Your task to perform on an android device: turn off improve location accuracy Image 0: 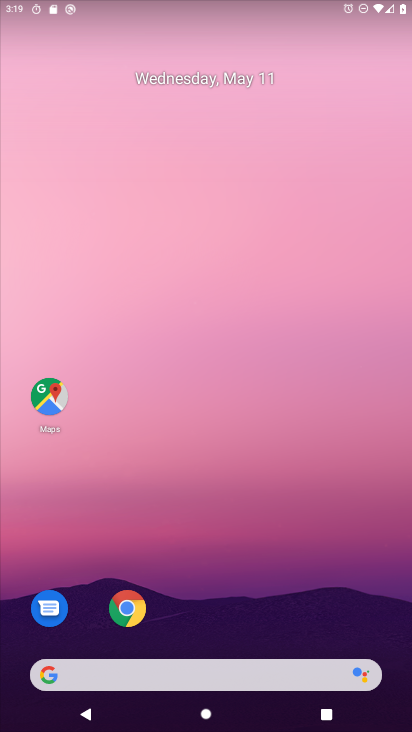
Step 0: drag from (248, 660) to (343, 126)
Your task to perform on an android device: turn off improve location accuracy Image 1: 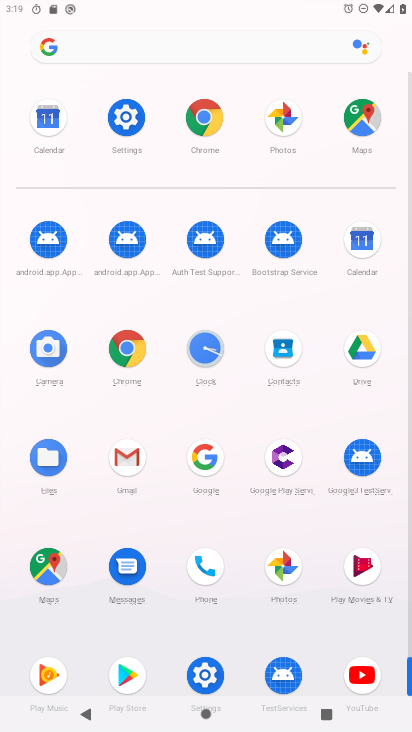
Step 1: click (112, 130)
Your task to perform on an android device: turn off improve location accuracy Image 2: 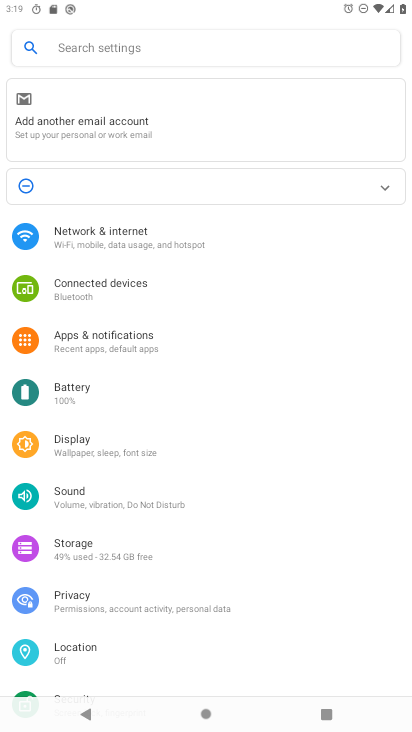
Step 2: drag from (187, 485) to (199, 233)
Your task to perform on an android device: turn off improve location accuracy Image 3: 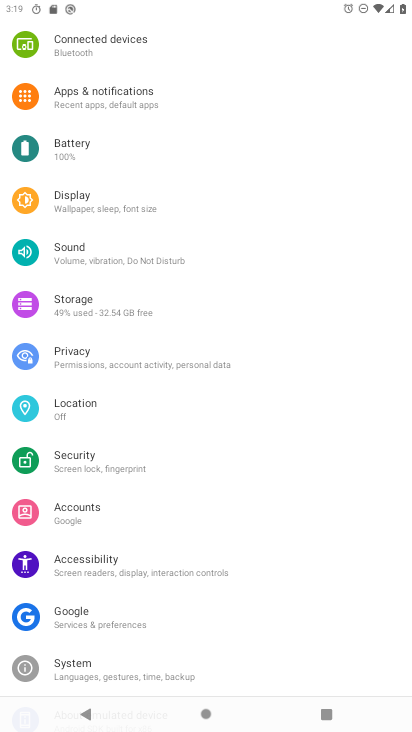
Step 3: click (154, 414)
Your task to perform on an android device: turn off improve location accuracy Image 4: 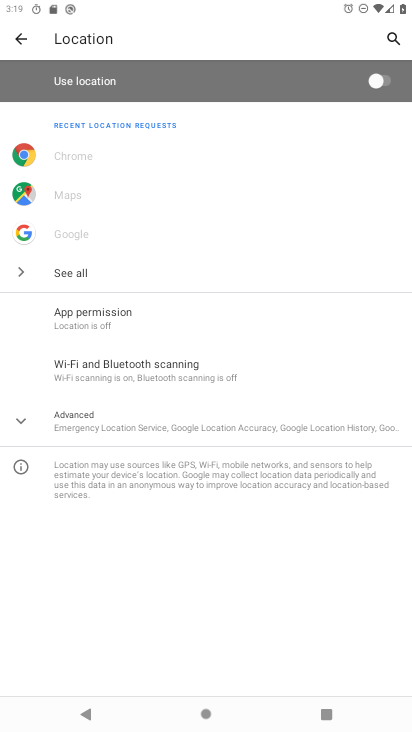
Step 4: click (185, 402)
Your task to perform on an android device: turn off improve location accuracy Image 5: 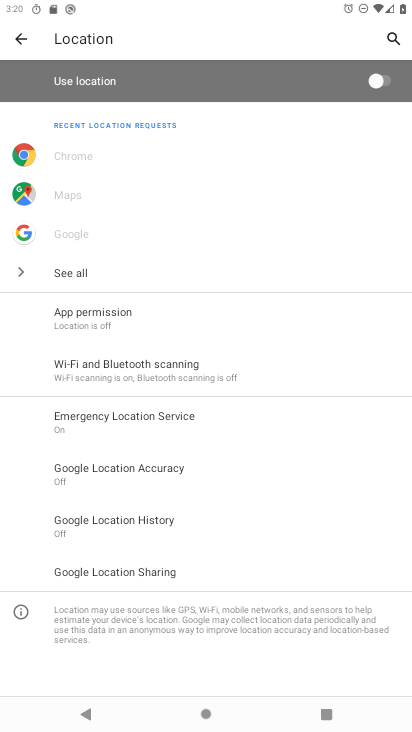
Step 5: click (158, 468)
Your task to perform on an android device: turn off improve location accuracy Image 6: 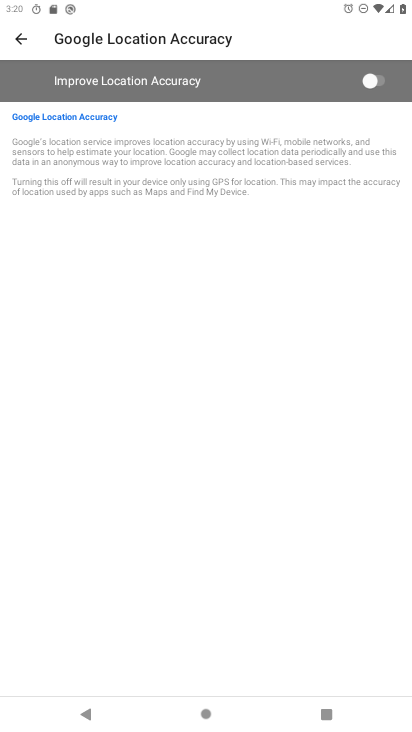
Step 6: task complete